Your task to perform on an android device: set the stopwatch Image 0: 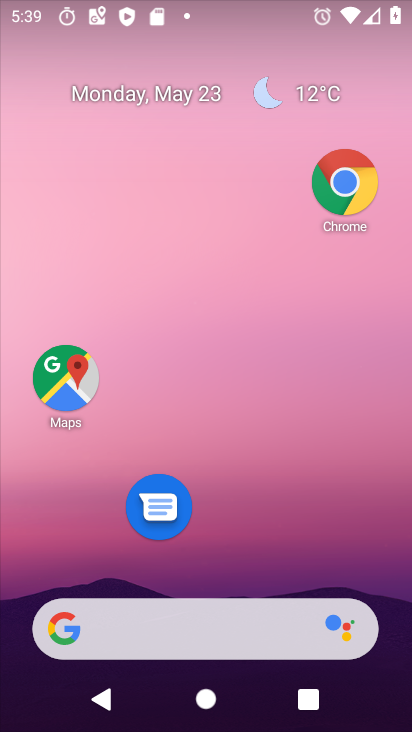
Step 0: drag from (249, 390) to (285, 21)
Your task to perform on an android device: set the stopwatch Image 1: 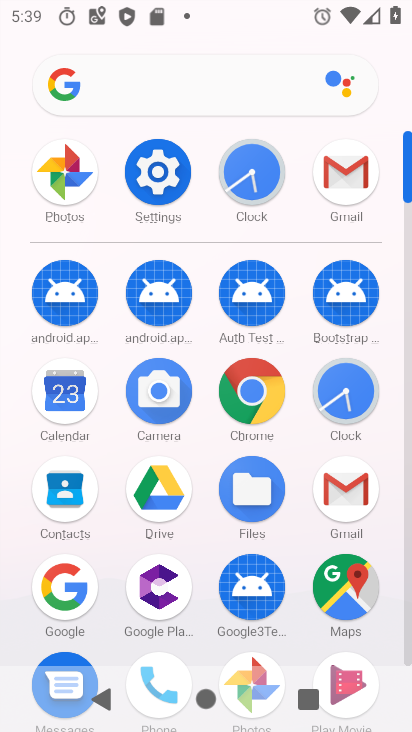
Step 1: click (238, 209)
Your task to perform on an android device: set the stopwatch Image 2: 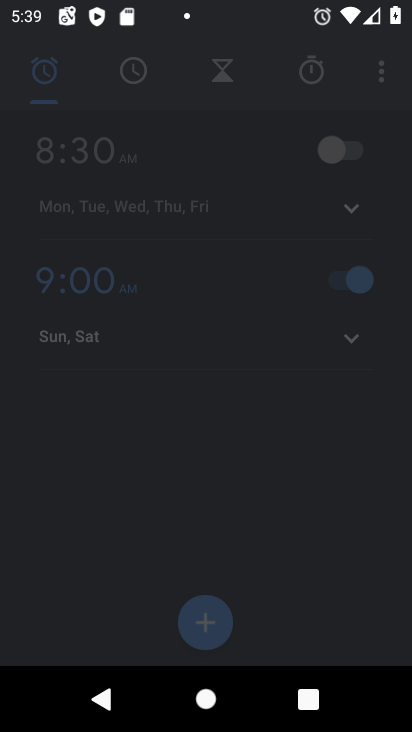
Step 2: click (244, 183)
Your task to perform on an android device: set the stopwatch Image 3: 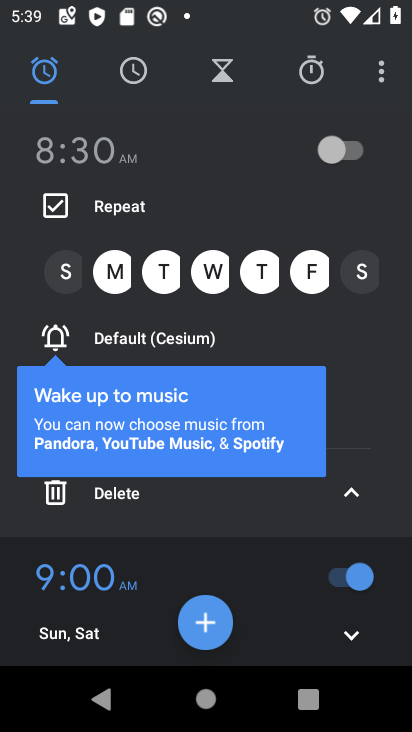
Step 3: click (324, 73)
Your task to perform on an android device: set the stopwatch Image 4: 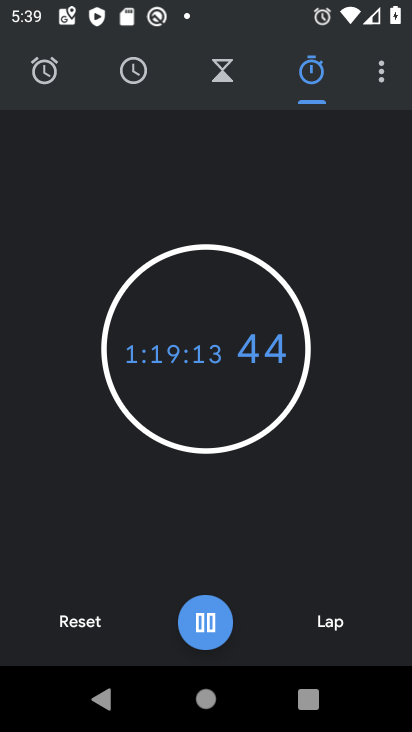
Step 4: task complete